Your task to perform on an android device: What's the weather going to be tomorrow? Image 0: 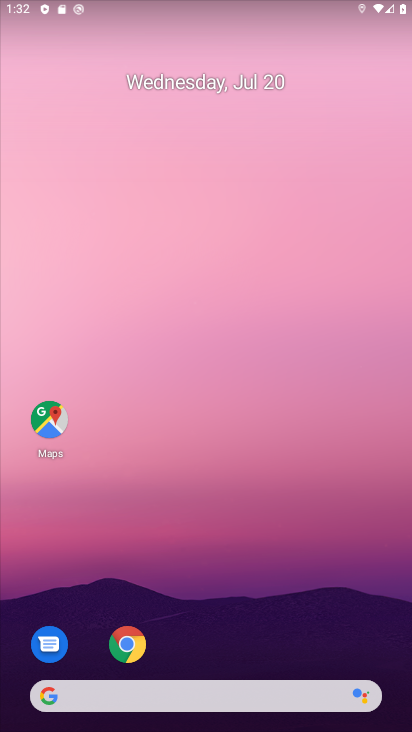
Step 0: click (212, 691)
Your task to perform on an android device: What's the weather going to be tomorrow? Image 1: 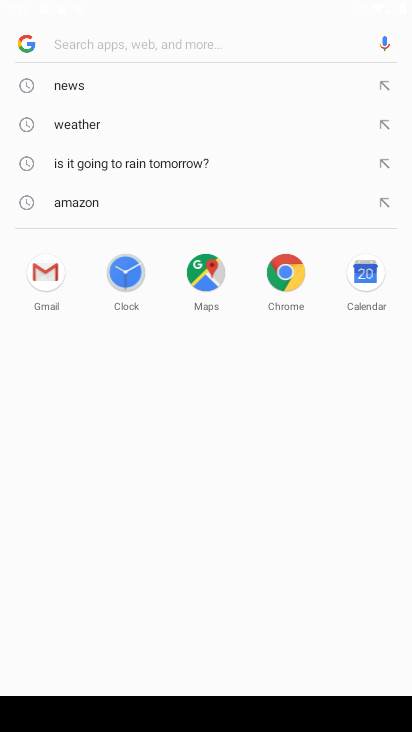
Step 1: type "what's the weather going to be tomorrow"
Your task to perform on an android device: What's the weather going to be tomorrow? Image 2: 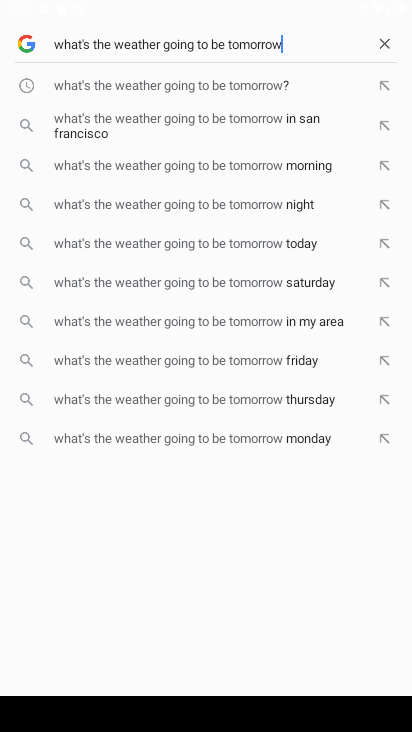
Step 2: click (218, 88)
Your task to perform on an android device: What's the weather going to be tomorrow? Image 3: 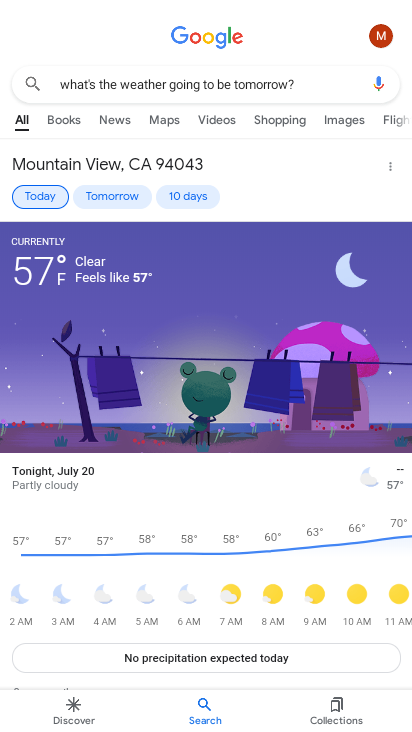
Step 3: click (119, 185)
Your task to perform on an android device: What's the weather going to be tomorrow? Image 4: 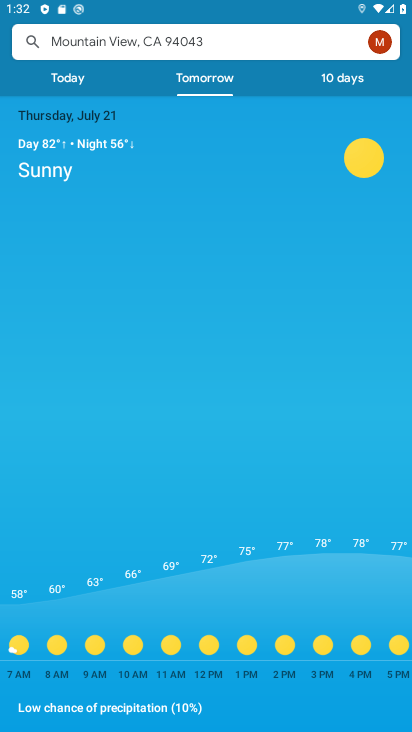
Step 4: task complete